Your task to perform on an android device: choose inbox layout in the gmail app Image 0: 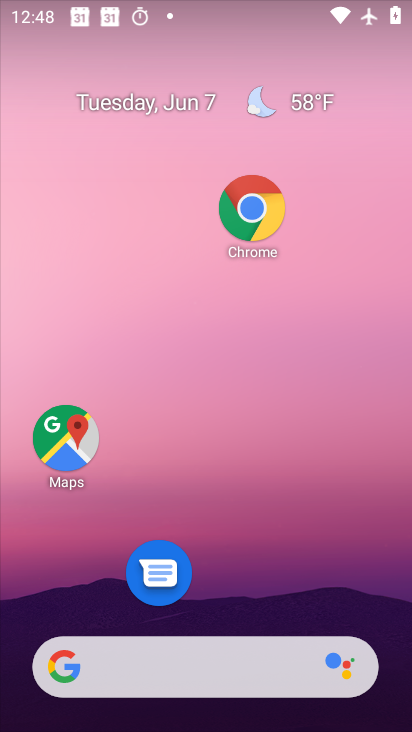
Step 0: drag from (217, 602) to (212, 149)
Your task to perform on an android device: choose inbox layout in the gmail app Image 1: 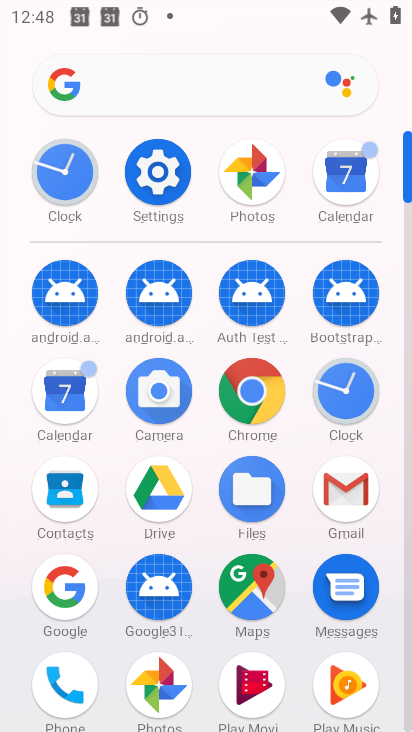
Step 1: click (327, 491)
Your task to perform on an android device: choose inbox layout in the gmail app Image 2: 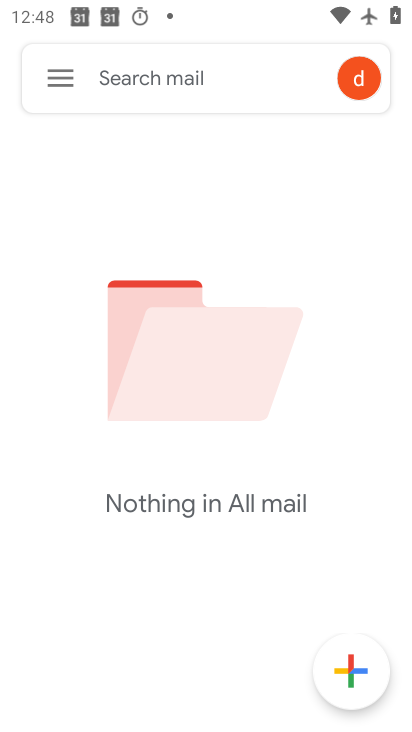
Step 2: click (61, 77)
Your task to perform on an android device: choose inbox layout in the gmail app Image 3: 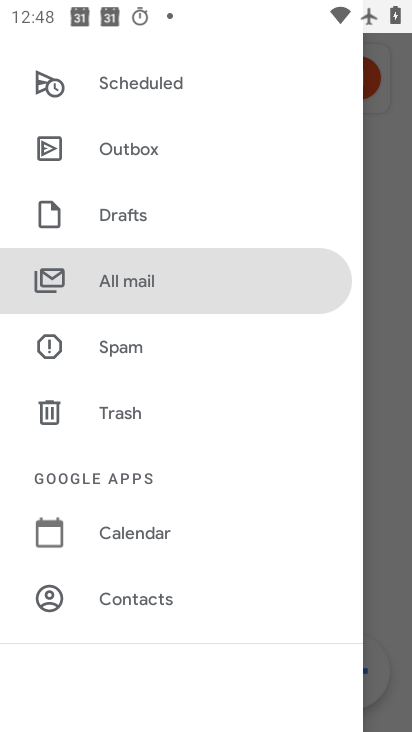
Step 3: drag from (149, 529) to (187, 225)
Your task to perform on an android device: choose inbox layout in the gmail app Image 4: 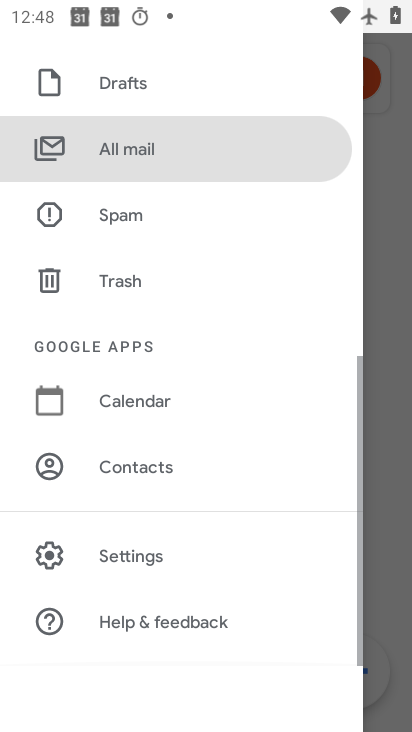
Step 4: click (134, 552)
Your task to perform on an android device: choose inbox layout in the gmail app Image 5: 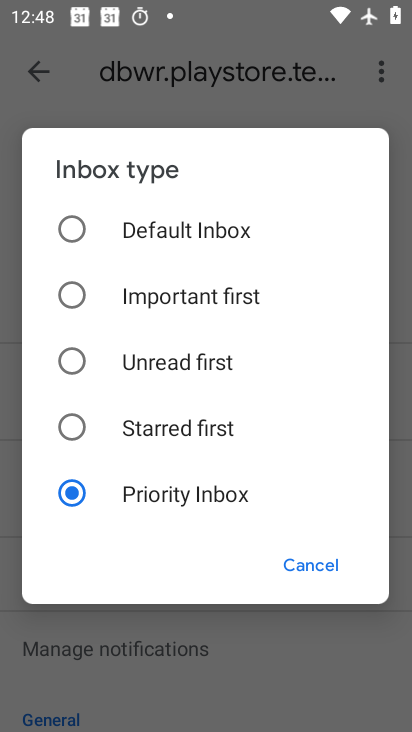
Step 5: click (161, 221)
Your task to perform on an android device: choose inbox layout in the gmail app Image 6: 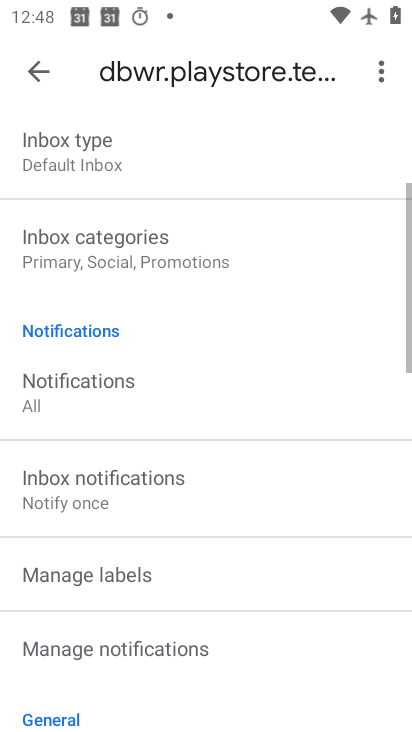
Step 6: task complete